Your task to perform on an android device: change the clock display to digital Image 0: 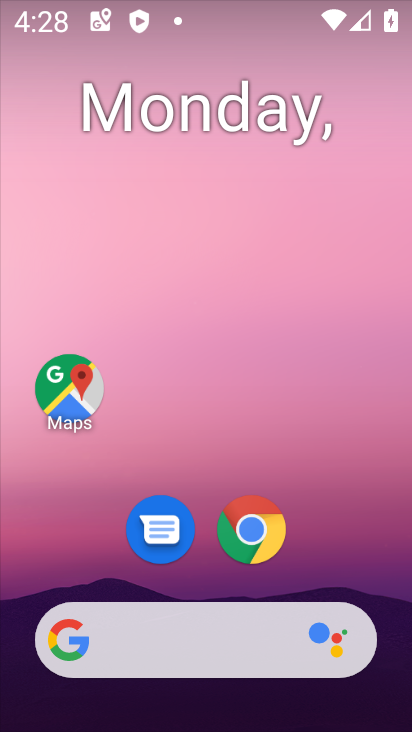
Step 0: drag from (202, 725) to (212, 233)
Your task to perform on an android device: change the clock display to digital Image 1: 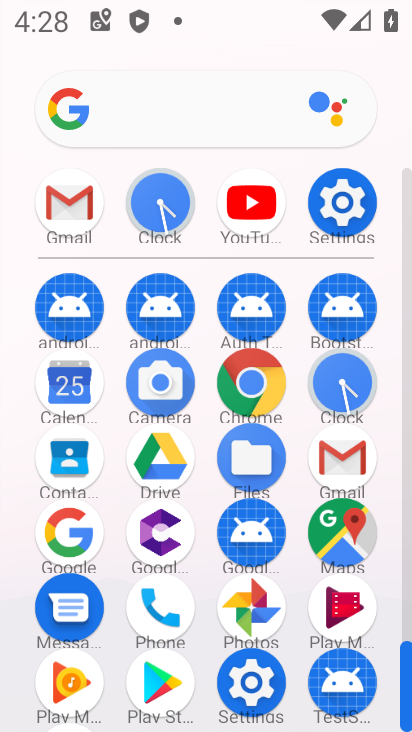
Step 1: click (341, 377)
Your task to perform on an android device: change the clock display to digital Image 2: 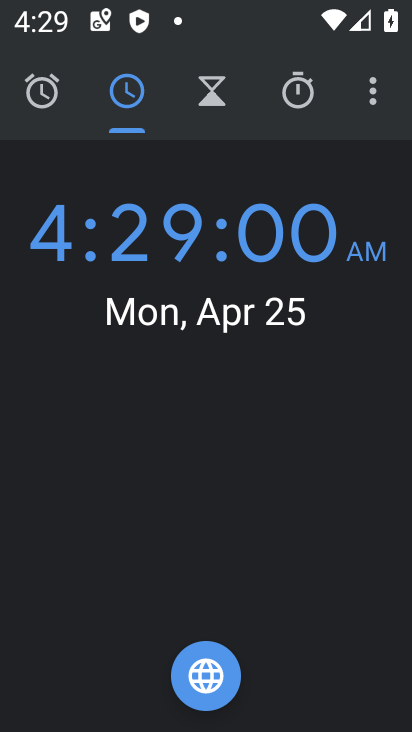
Step 2: click (373, 92)
Your task to perform on an android device: change the clock display to digital Image 3: 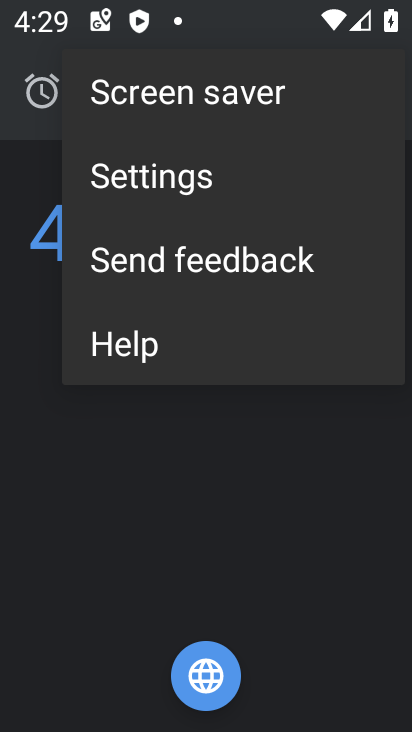
Step 3: click (159, 175)
Your task to perform on an android device: change the clock display to digital Image 4: 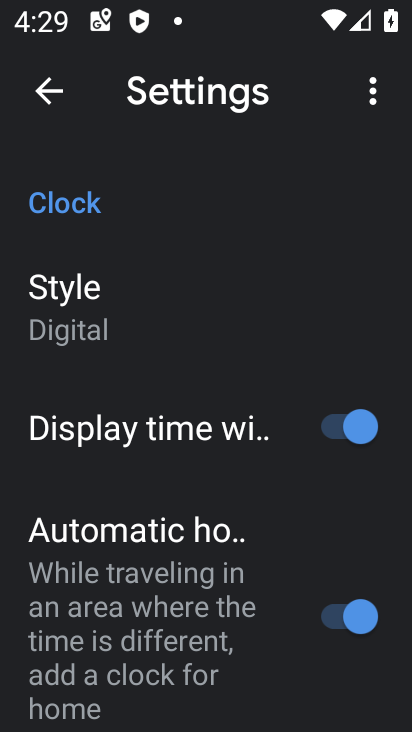
Step 4: task complete